Your task to perform on an android device: Go to Google Image 0: 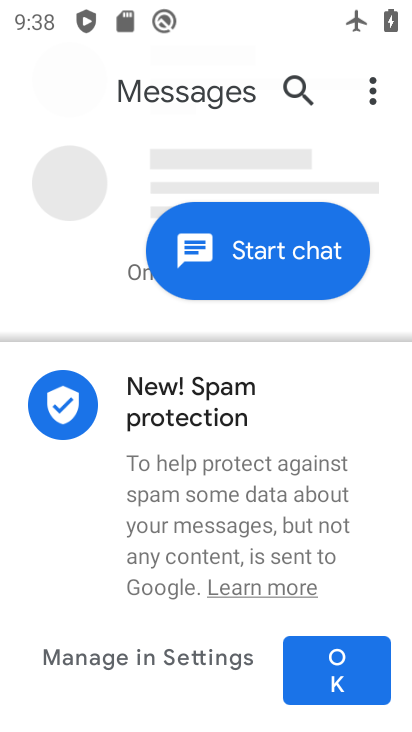
Step 0: press home button
Your task to perform on an android device: Go to Google Image 1: 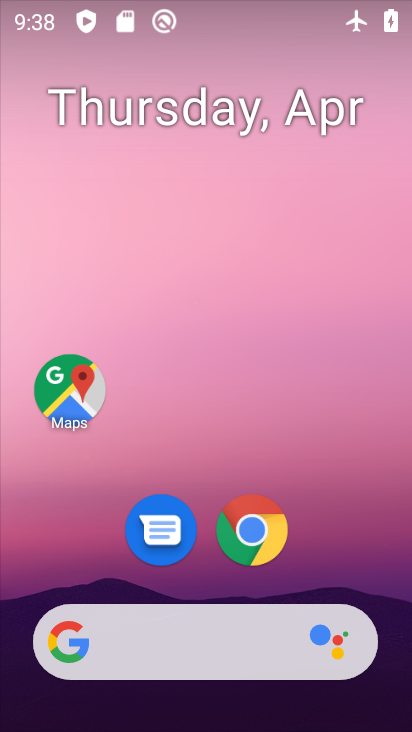
Step 1: drag from (360, 577) to (251, 32)
Your task to perform on an android device: Go to Google Image 2: 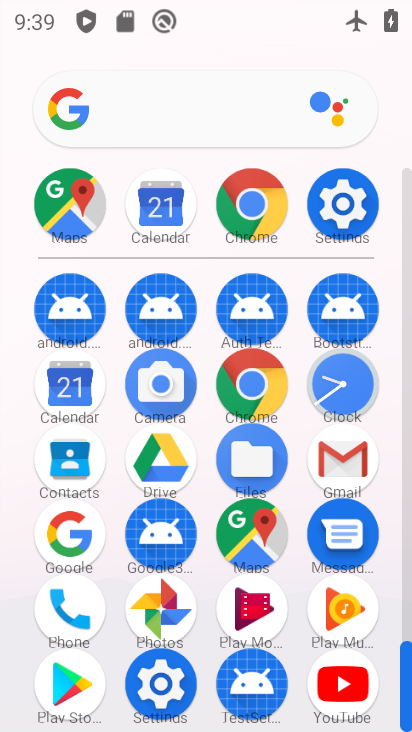
Step 2: click (73, 525)
Your task to perform on an android device: Go to Google Image 3: 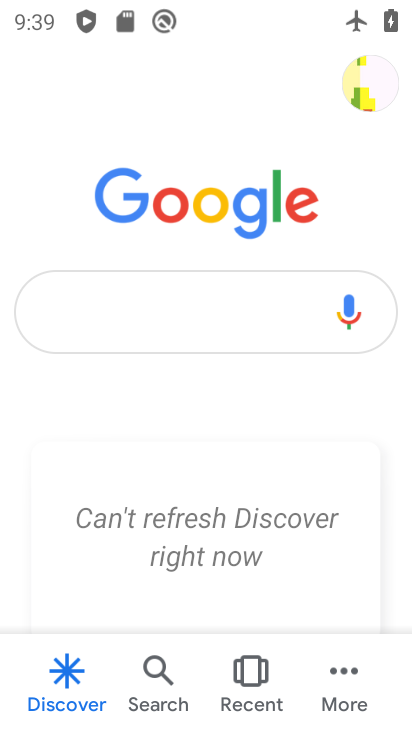
Step 3: task complete